Your task to perform on an android device: make emails show in primary in the gmail app Image 0: 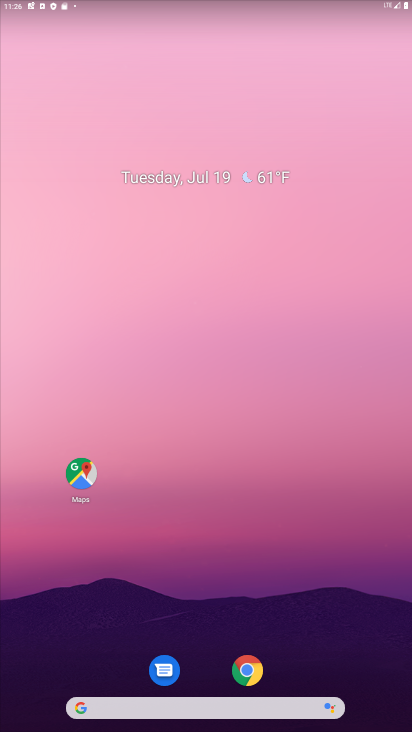
Step 0: drag from (102, 719) to (148, 296)
Your task to perform on an android device: make emails show in primary in the gmail app Image 1: 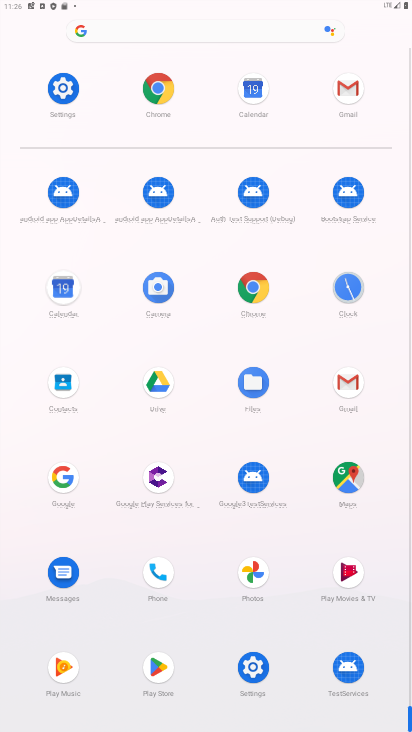
Step 1: click (351, 91)
Your task to perform on an android device: make emails show in primary in the gmail app Image 2: 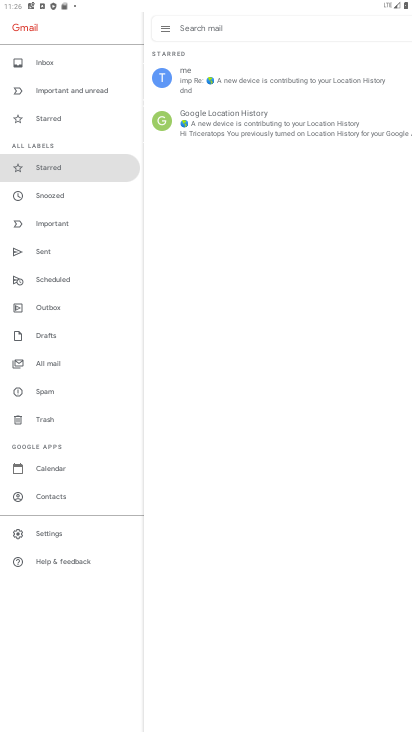
Step 2: click (62, 517)
Your task to perform on an android device: make emails show in primary in the gmail app Image 3: 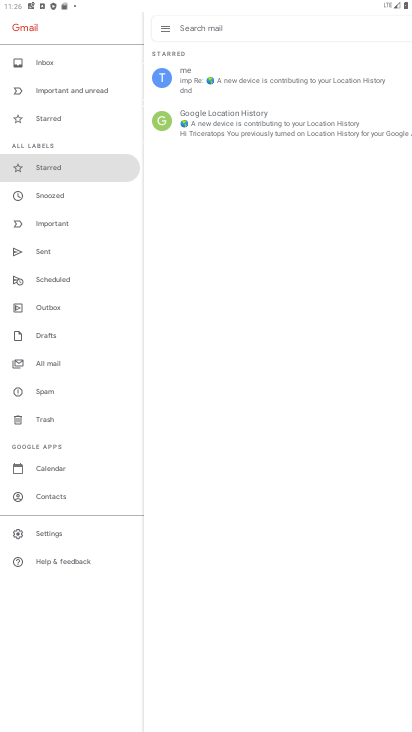
Step 3: click (62, 517)
Your task to perform on an android device: make emails show in primary in the gmail app Image 4: 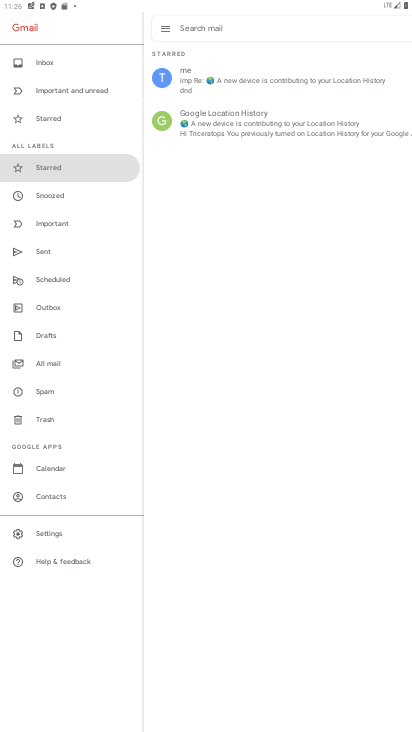
Step 4: click (53, 533)
Your task to perform on an android device: make emails show in primary in the gmail app Image 5: 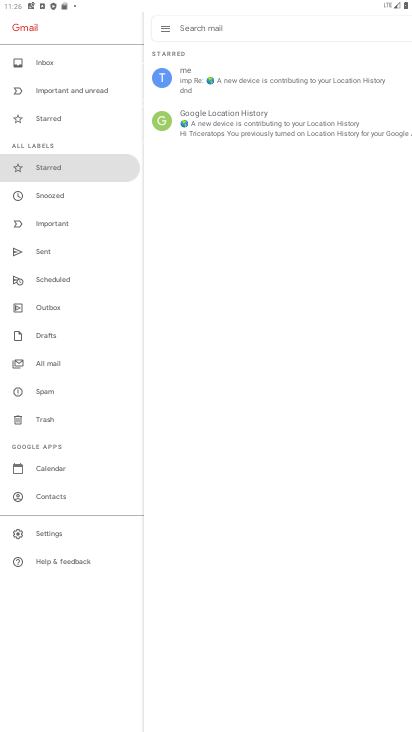
Step 5: click (53, 533)
Your task to perform on an android device: make emails show in primary in the gmail app Image 6: 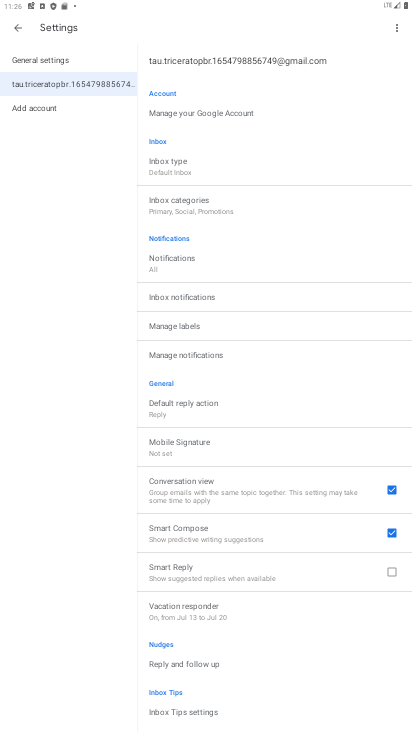
Step 6: click (198, 198)
Your task to perform on an android device: make emails show in primary in the gmail app Image 7: 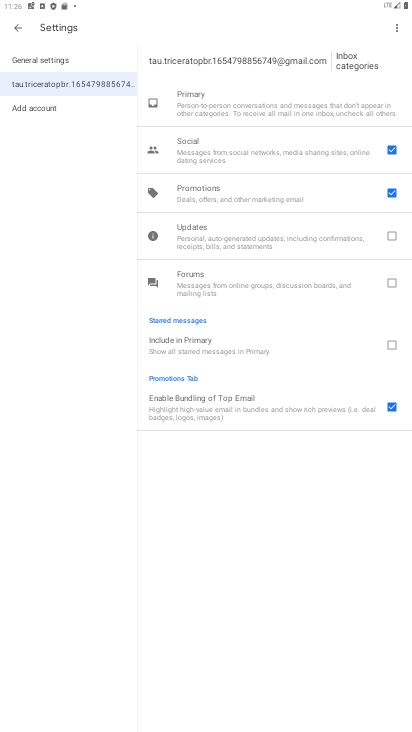
Step 7: click (390, 192)
Your task to perform on an android device: make emails show in primary in the gmail app Image 8: 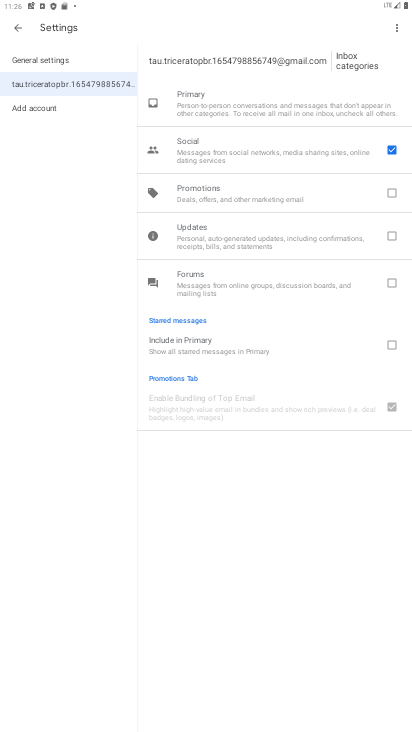
Step 8: click (387, 148)
Your task to perform on an android device: make emails show in primary in the gmail app Image 9: 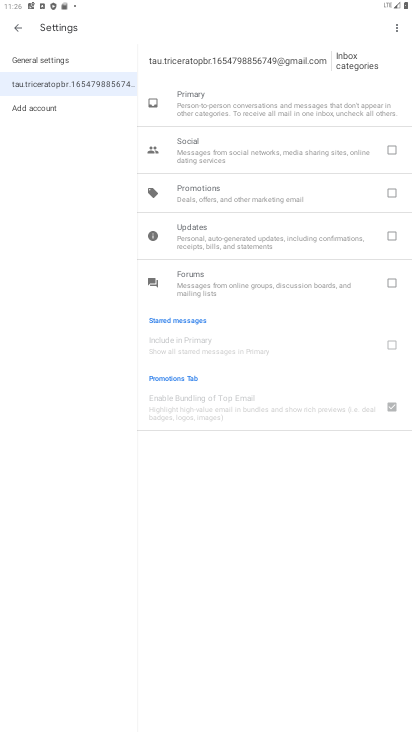
Step 9: task complete